Your task to perform on an android device: Go to Reddit.com Image 0: 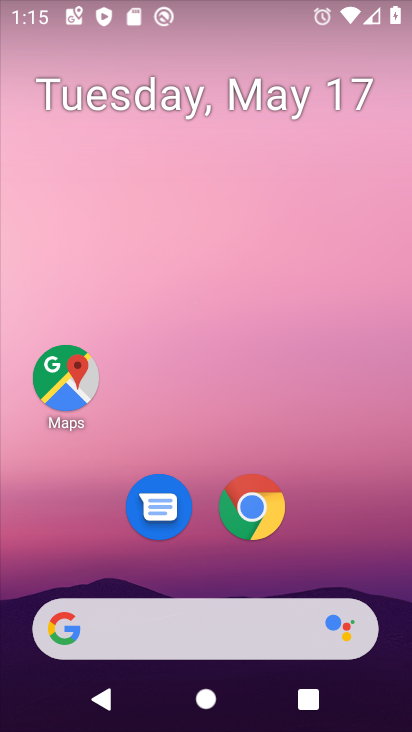
Step 0: click (245, 507)
Your task to perform on an android device: Go to Reddit.com Image 1: 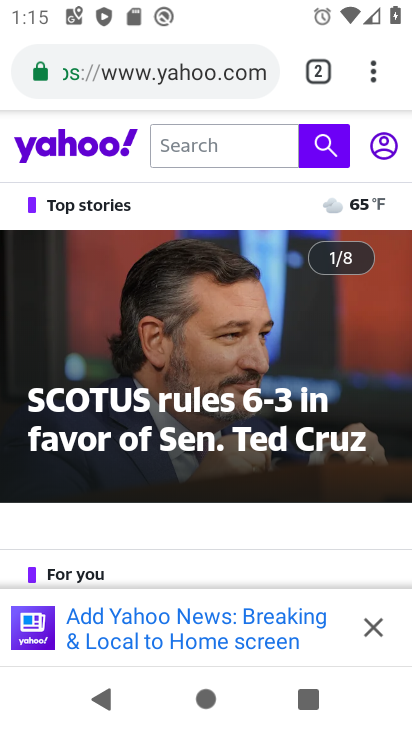
Step 1: click (364, 64)
Your task to perform on an android device: Go to Reddit.com Image 2: 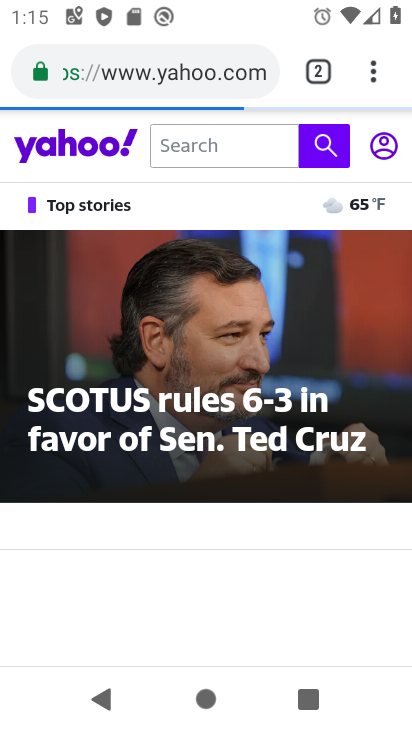
Step 2: click (315, 65)
Your task to perform on an android device: Go to Reddit.com Image 3: 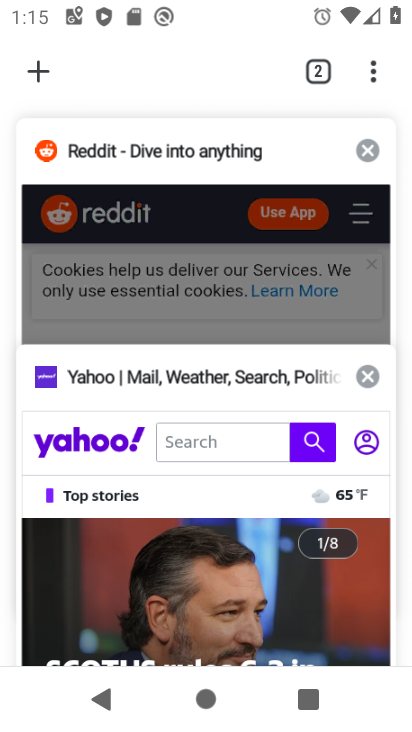
Step 3: click (158, 152)
Your task to perform on an android device: Go to Reddit.com Image 4: 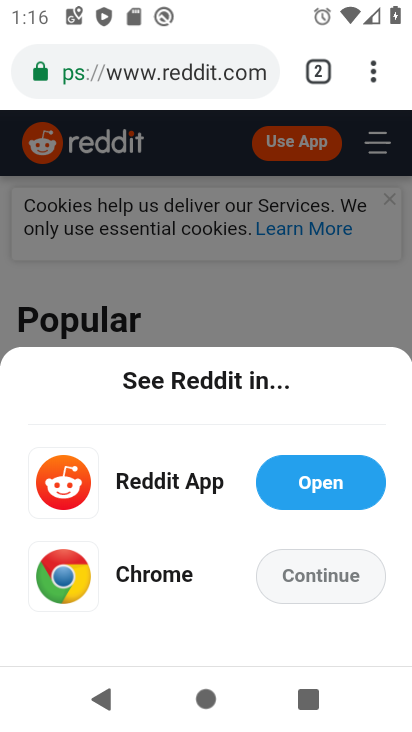
Step 4: task complete